Your task to perform on an android device: Open the stopwatch Image 0: 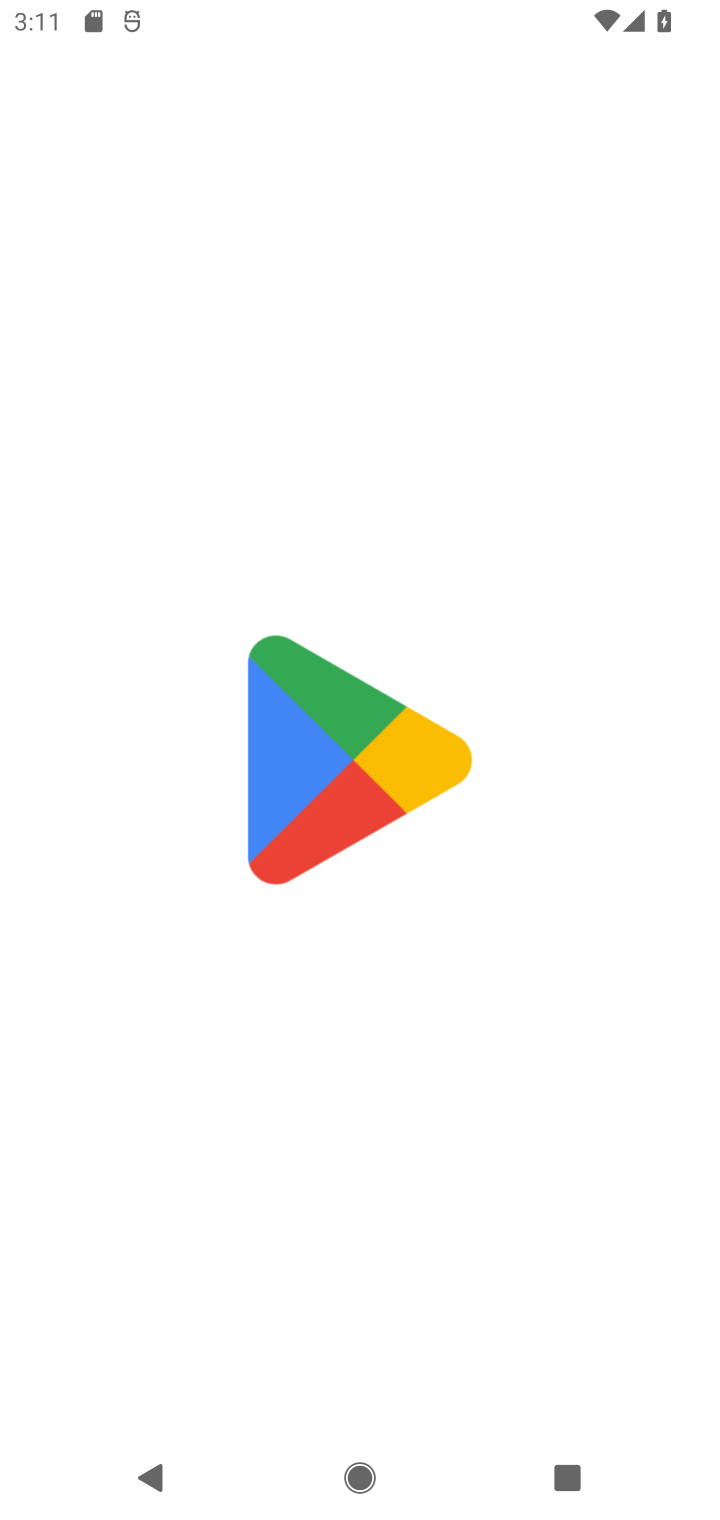
Step 0: press home button
Your task to perform on an android device: Open the stopwatch Image 1: 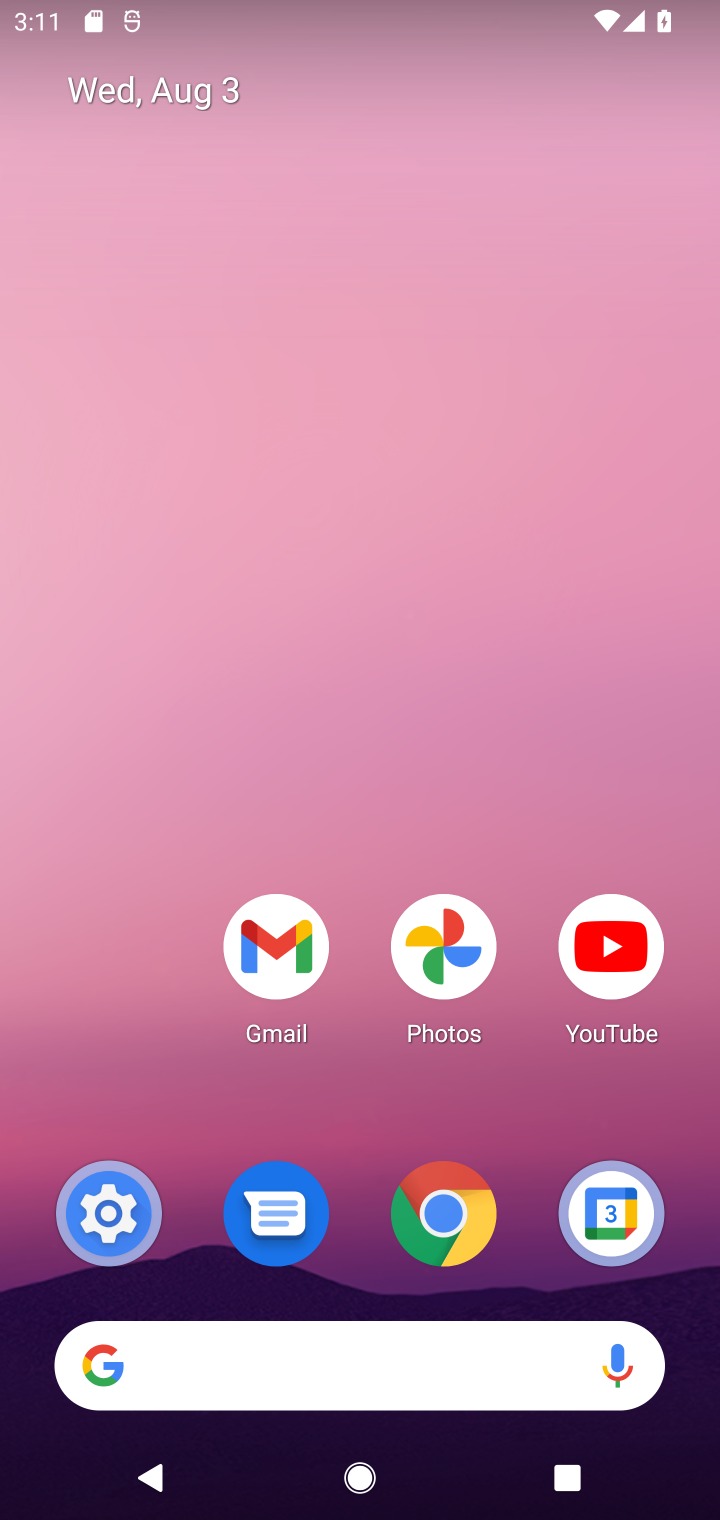
Step 1: drag from (326, 1279) to (398, 229)
Your task to perform on an android device: Open the stopwatch Image 2: 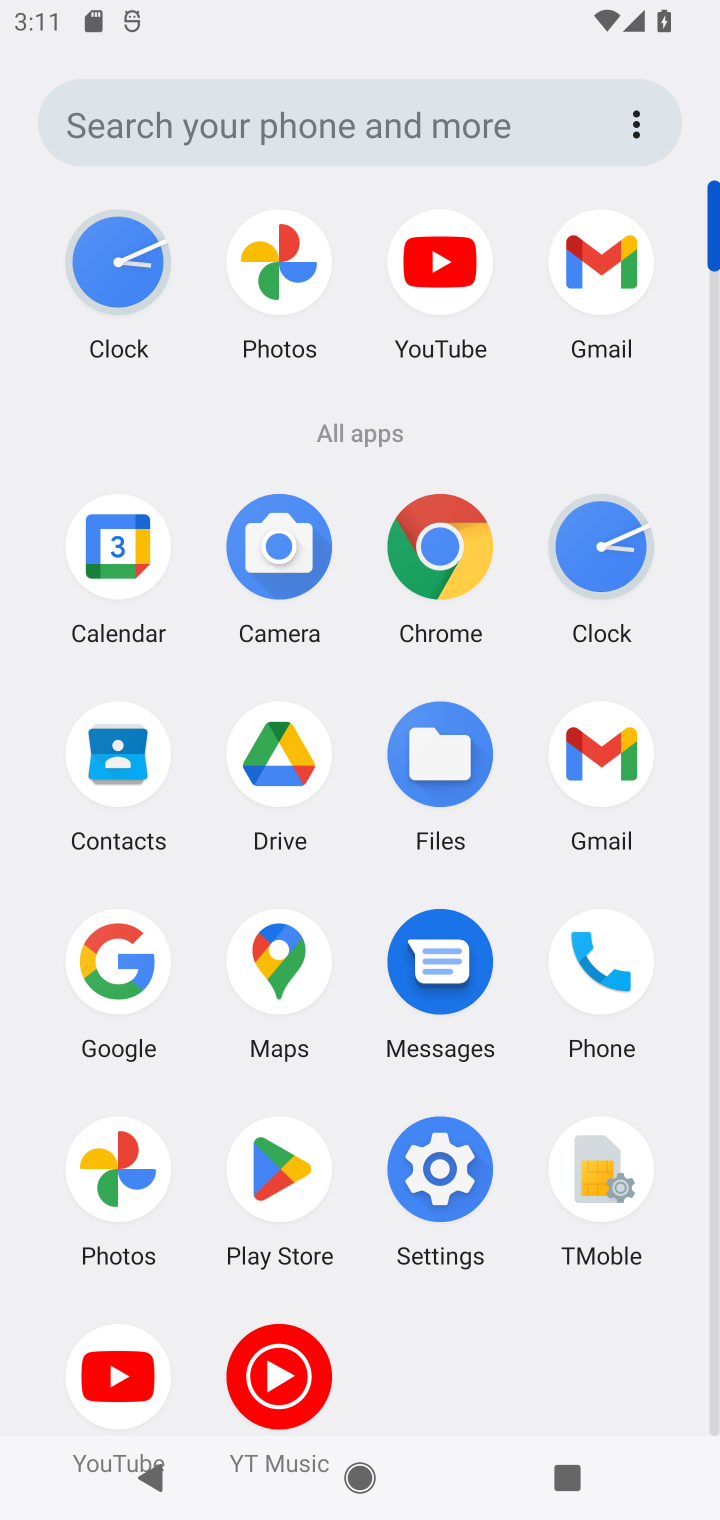
Step 2: click (585, 555)
Your task to perform on an android device: Open the stopwatch Image 3: 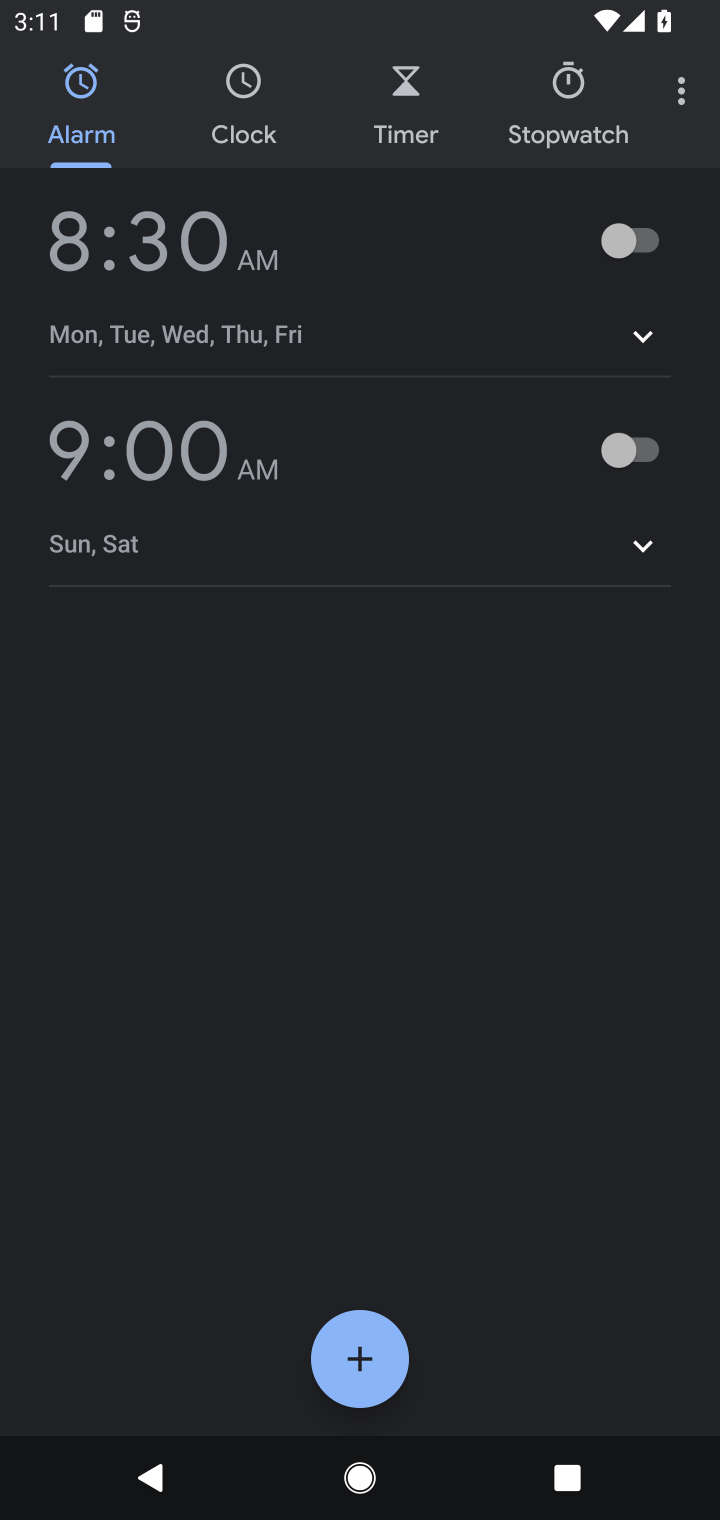
Step 3: click (593, 90)
Your task to perform on an android device: Open the stopwatch Image 4: 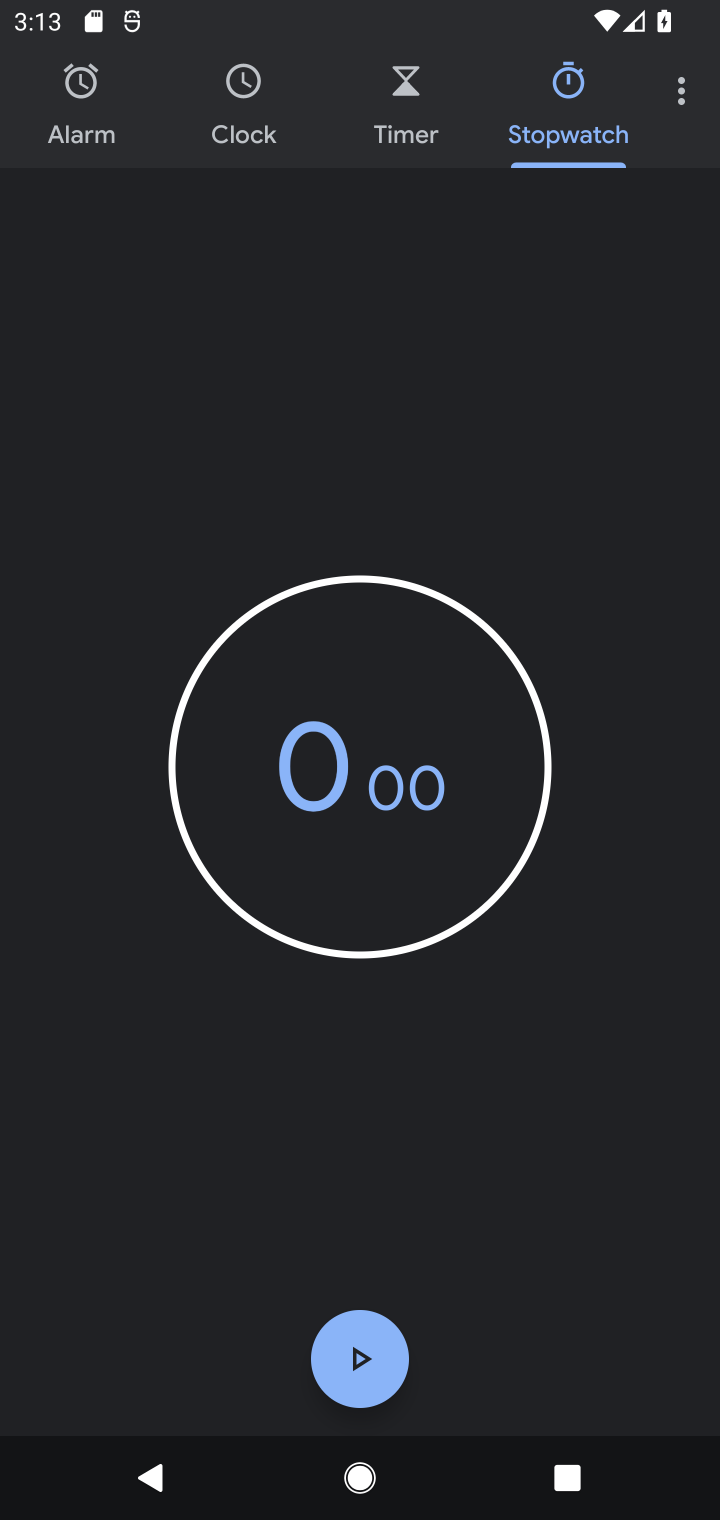
Step 4: task complete